Your task to perform on an android device: Open the stopwatch Image 0: 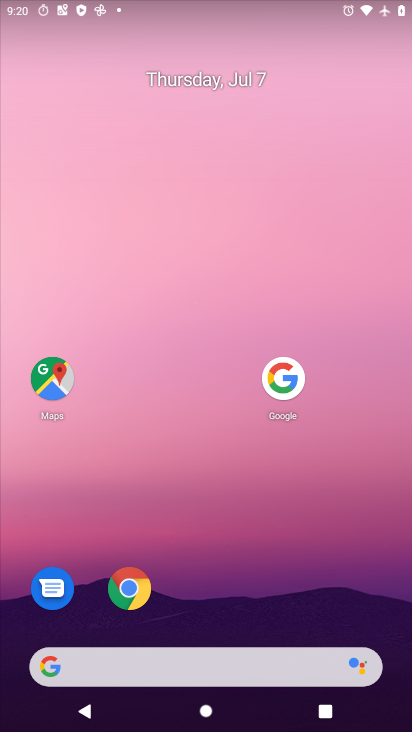
Step 0: drag from (200, 664) to (306, 79)
Your task to perform on an android device: Open the stopwatch Image 1: 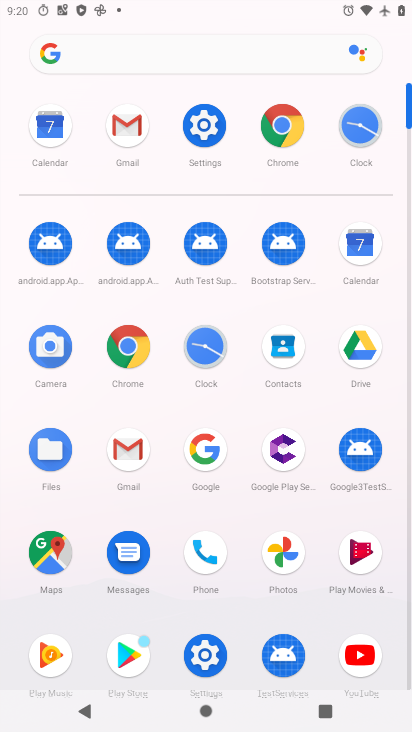
Step 1: click (200, 349)
Your task to perform on an android device: Open the stopwatch Image 2: 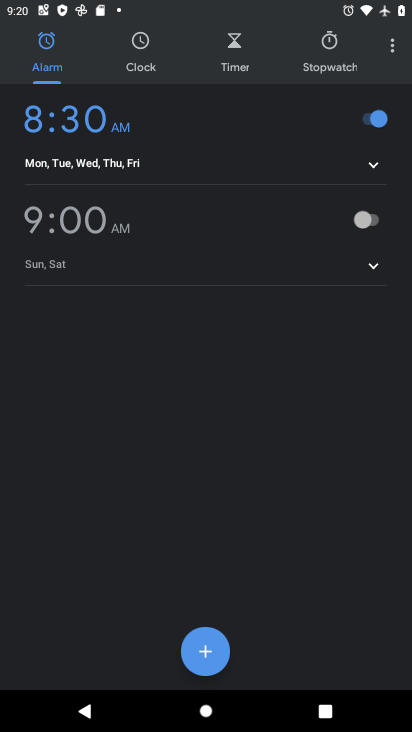
Step 2: click (338, 51)
Your task to perform on an android device: Open the stopwatch Image 3: 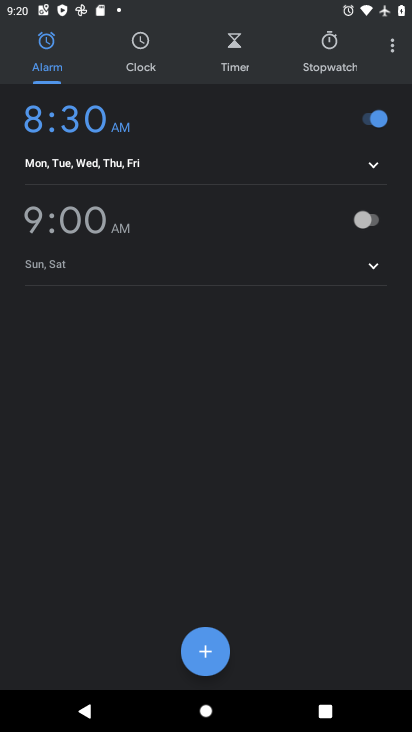
Step 3: click (335, 59)
Your task to perform on an android device: Open the stopwatch Image 4: 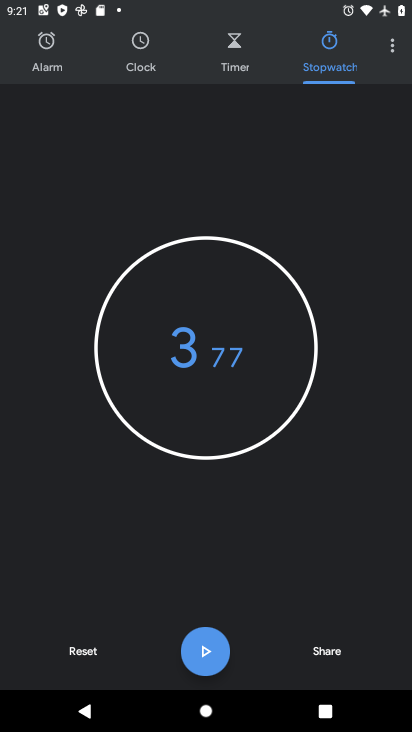
Step 4: click (88, 655)
Your task to perform on an android device: Open the stopwatch Image 5: 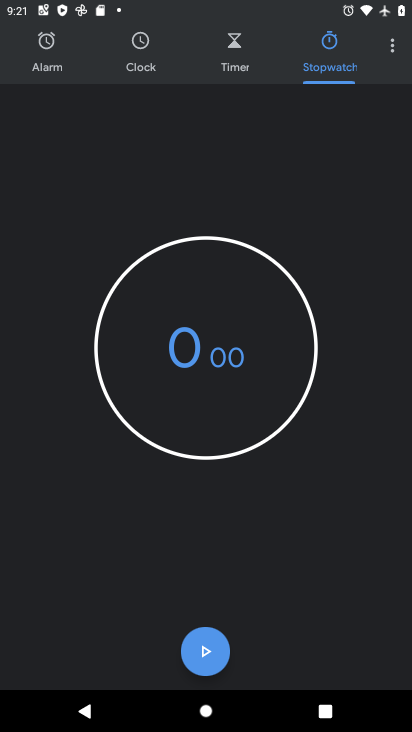
Step 5: click (210, 370)
Your task to perform on an android device: Open the stopwatch Image 6: 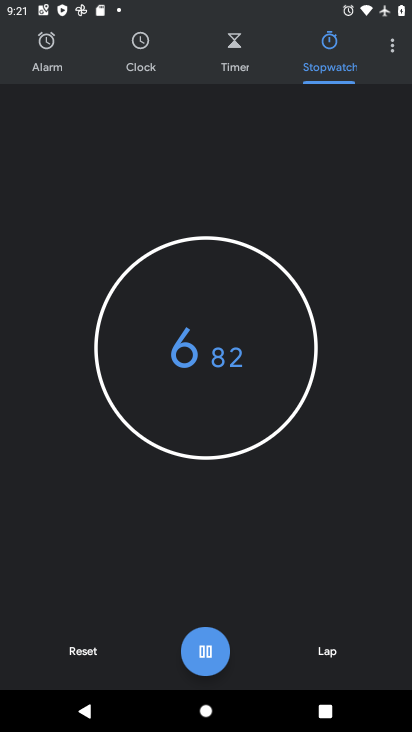
Step 6: click (221, 356)
Your task to perform on an android device: Open the stopwatch Image 7: 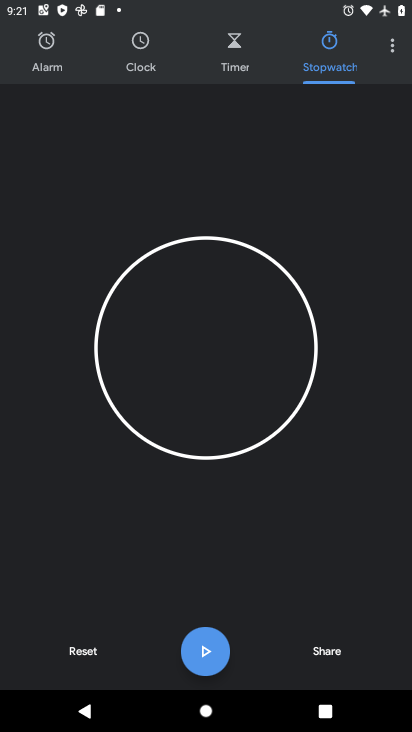
Step 7: task complete